Your task to perform on an android device: Open Youtube and go to "Your channel" Image 0: 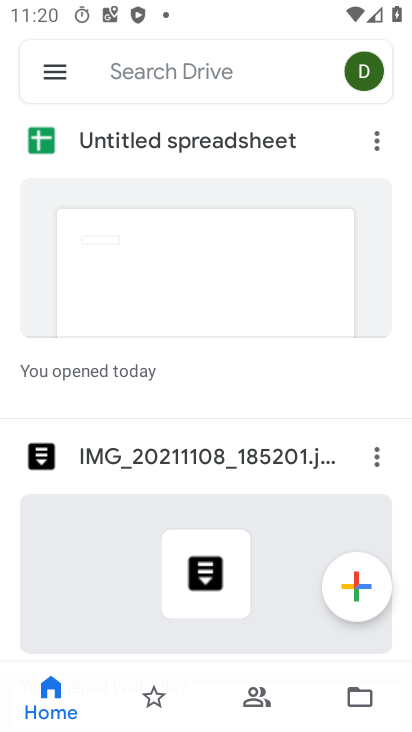
Step 0: press home button
Your task to perform on an android device: Open Youtube and go to "Your channel" Image 1: 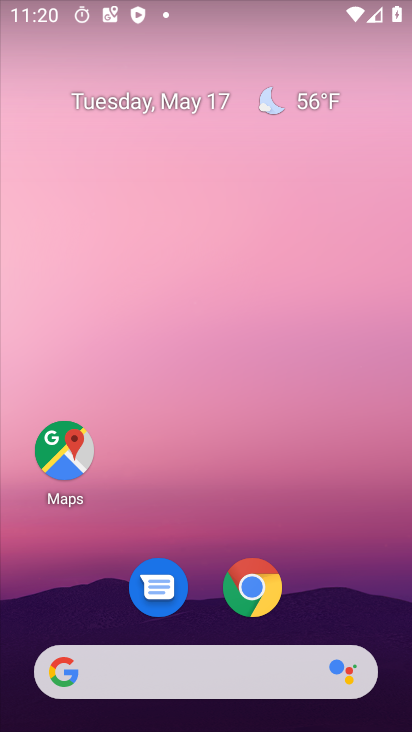
Step 1: drag from (330, 579) to (224, 205)
Your task to perform on an android device: Open Youtube and go to "Your channel" Image 2: 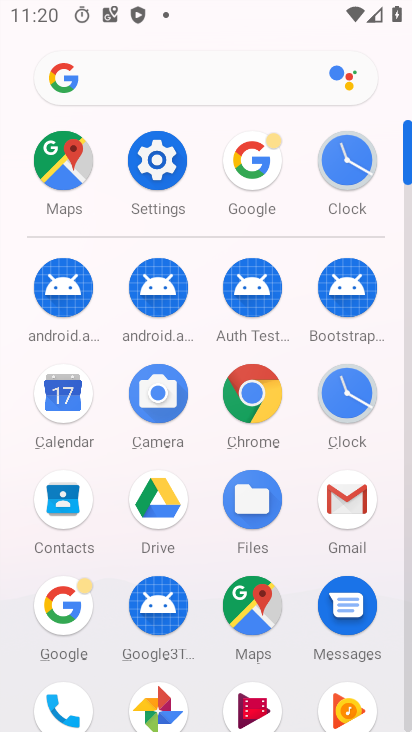
Step 2: drag from (204, 536) to (214, 343)
Your task to perform on an android device: Open Youtube and go to "Your channel" Image 3: 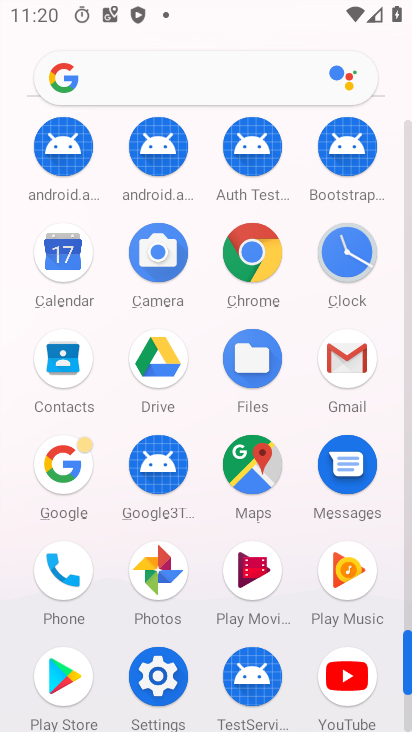
Step 3: drag from (303, 654) to (286, 454)
Your task to perform on an android device: Open Youtube and go to "Your channel" Image 4: 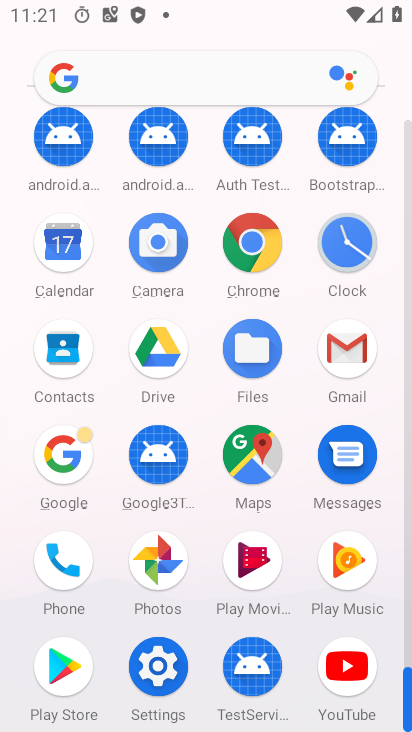
Step 4: click (347, 666)
Your task to perform on an android device: Open Youtube and go to "Your channel" Image 5: 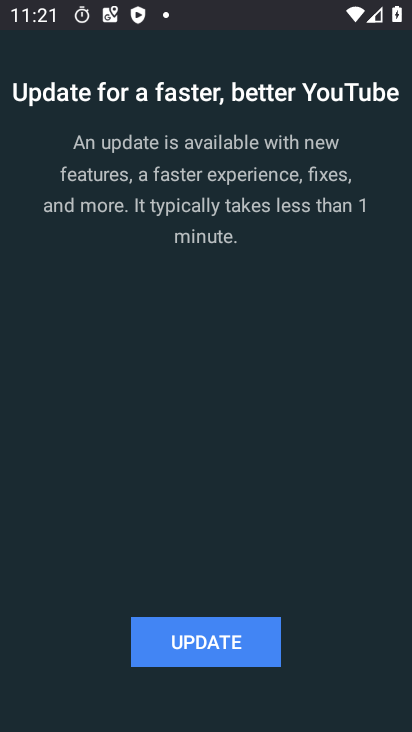
Step 5: click (216, 643)
Your task to perform on an android device: Open Youtube and go to "Your channel" Image 6: 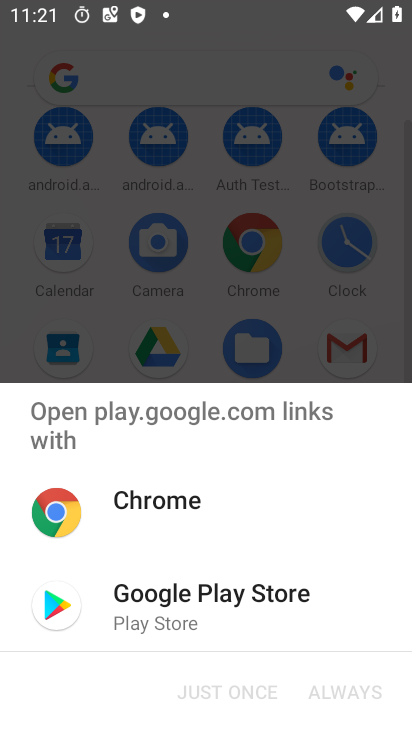
Step 6: click (215, 607)
Your task to perform on an android device: Open Youtube and go to "Your channel" Image 7: 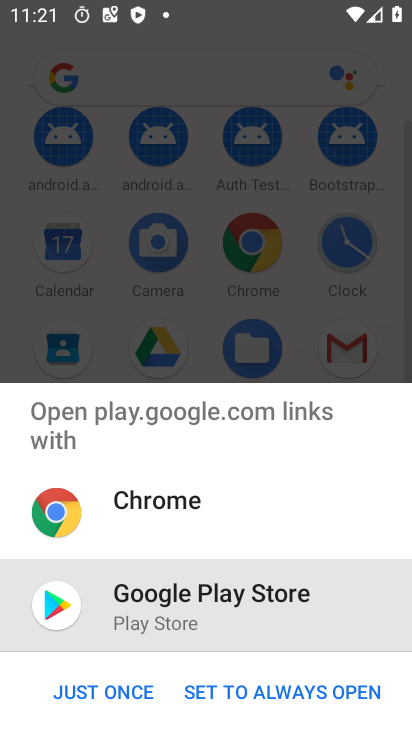
Step 7: click (97, 699)
Your task to perform on an android device: Open Youtube and go to "Your channel" Image 8: 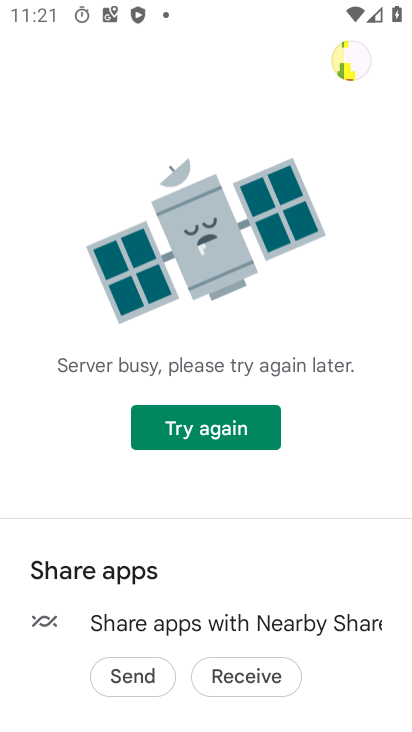
Step 8: click (185, 433)
Your task to perform on an android device: Open Youtube and go to "Your channel" Image 9: 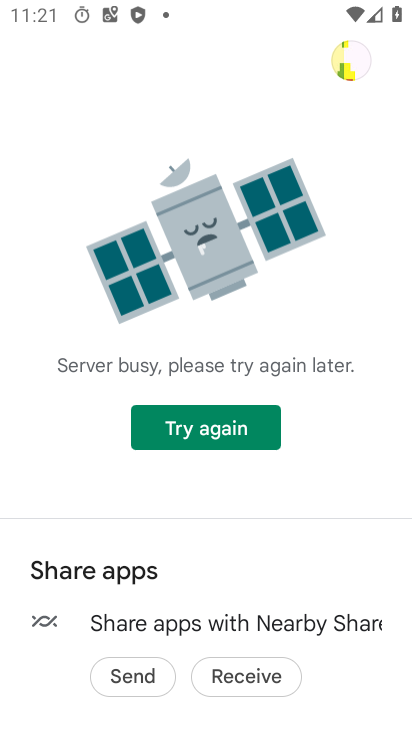
Step 9: click (191, 443)
Your task to perform on an android device: Open Youtube and go to "Your channel" Image 10: 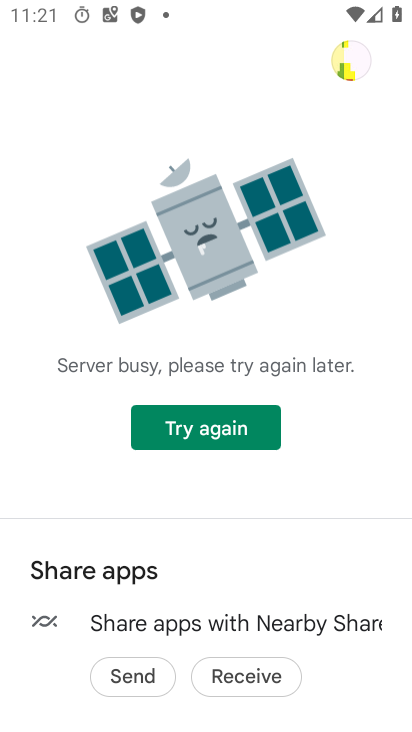
Step 10: click (183, 434)
Your task to perform on an android device: Open Youtube and go to "Your channel" Image 11: 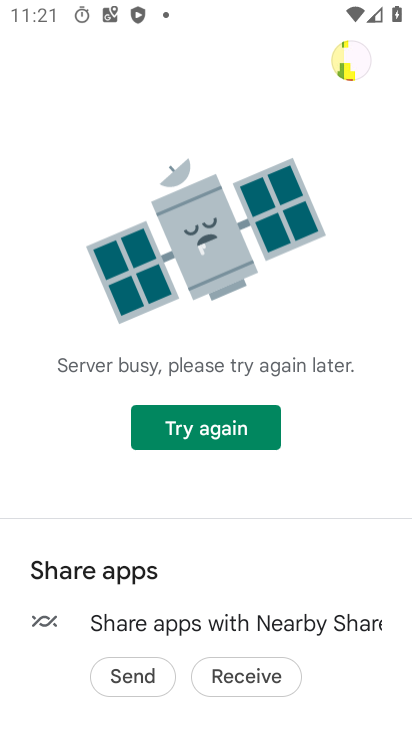
Step 11: task complete